Your task to perform on an android device: turn on location history Image 0: 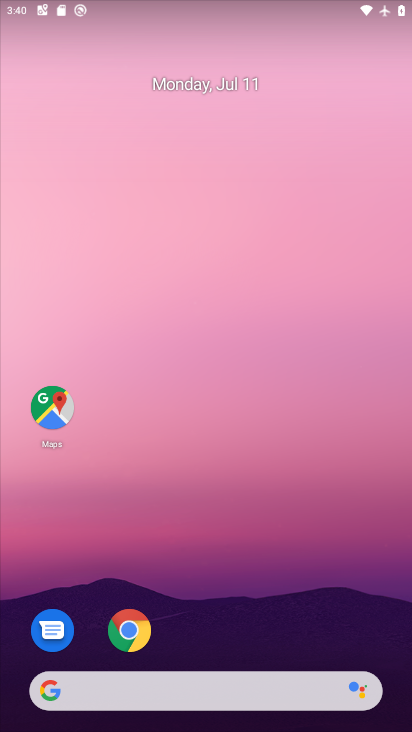
Step 0: drag from (315, 544) to (278, 153)
Your task to perform on an android device: turn on location history Image 1: 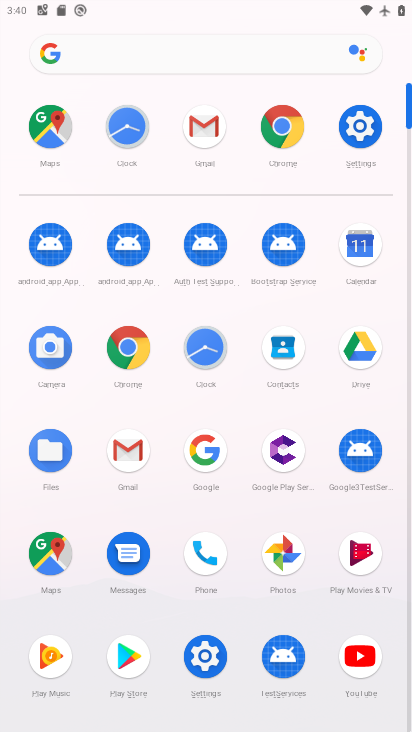
Step 1: click (252, 343)
Your task to perform on an android device: turn on location history Image 2: 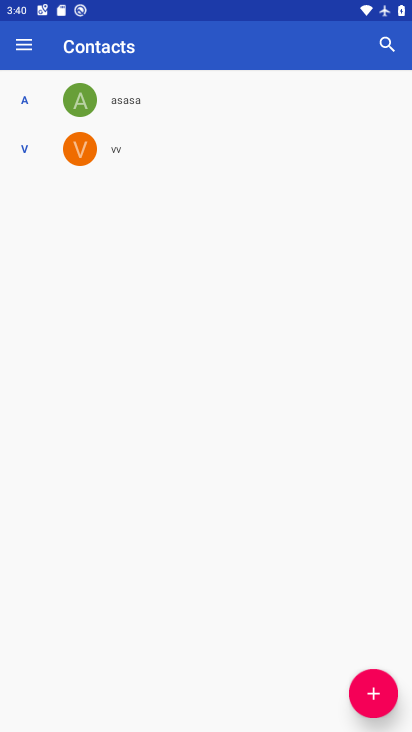
Step 2: press home button
Your task to perform on an android device: turn on location history Image 3: 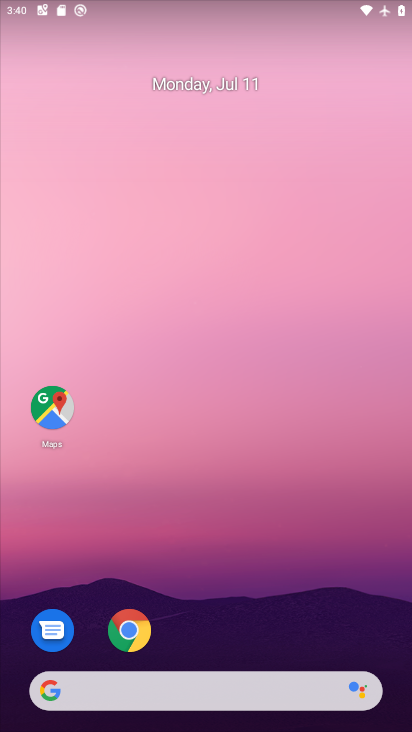
Step 3: drag from (264, 616) to (190, 88)
Your task to perform on an android device: turn on location history Image 4: 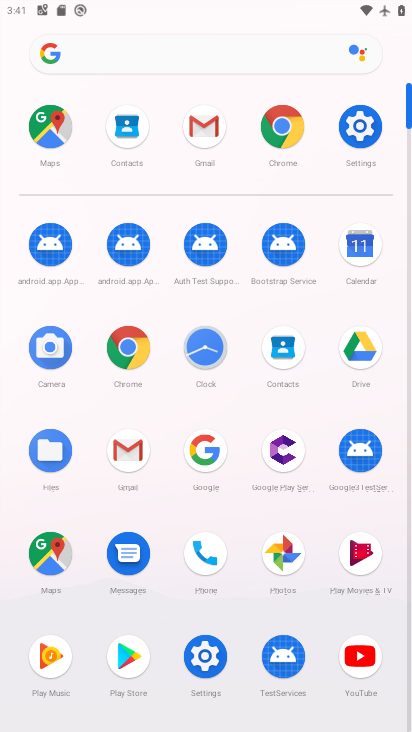
Step 4: click (344, 147)
Your task to perform on an android device: turn on location history Image 5: 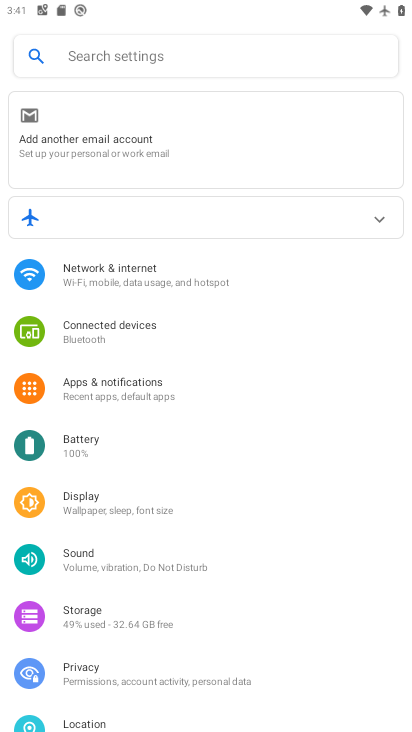
Step 5: drag from (233, 588) to (231, 454)
Your task to perform on an android device: turn on location history Image 6: 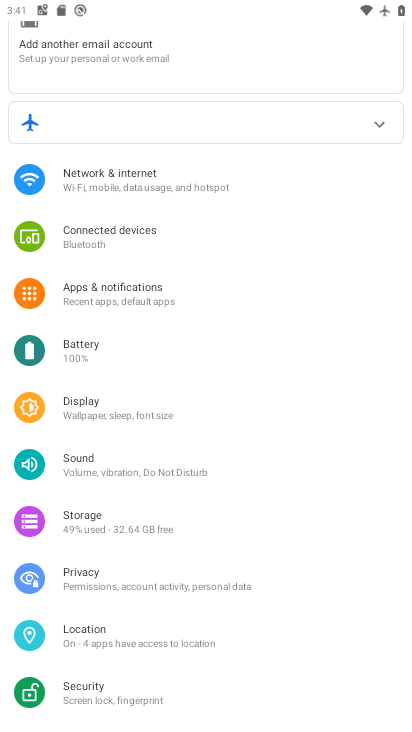
Step 6: click (222, 642)
Your task to perform on an android device: turn on location history Image 7: 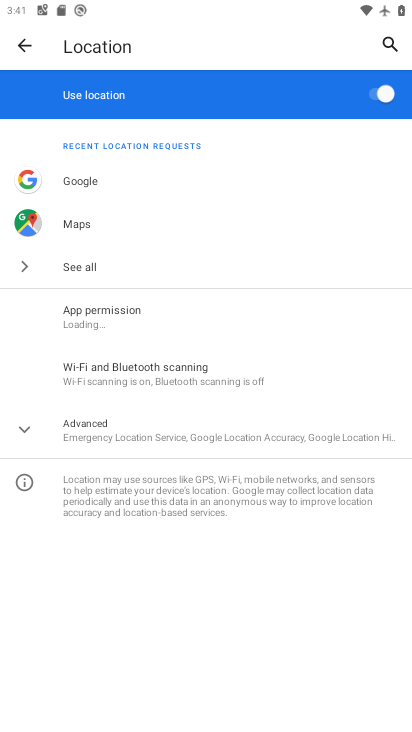
Step 7: click (157, 415)
Your task to perform on an android device: turn on location history Image 8: 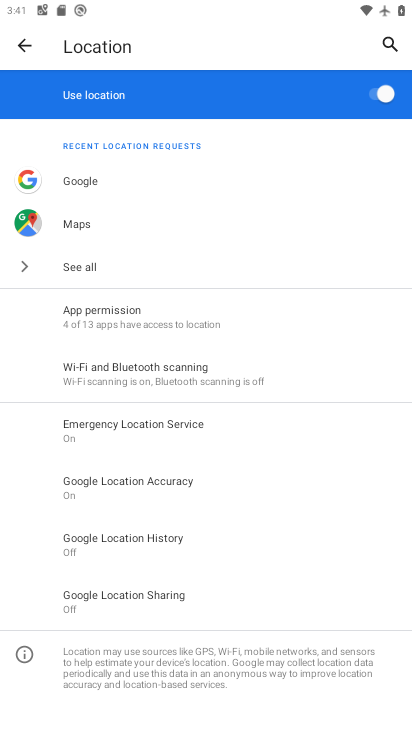
Step 8: click (204, 529)
Your task to perform on an android device: turn on location history Image 9: 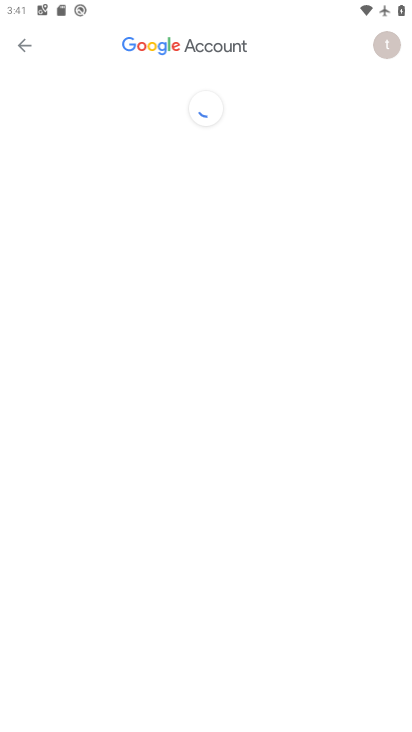
Step 9: task complete